Your task to perform on an android device: check data usage Image 0: 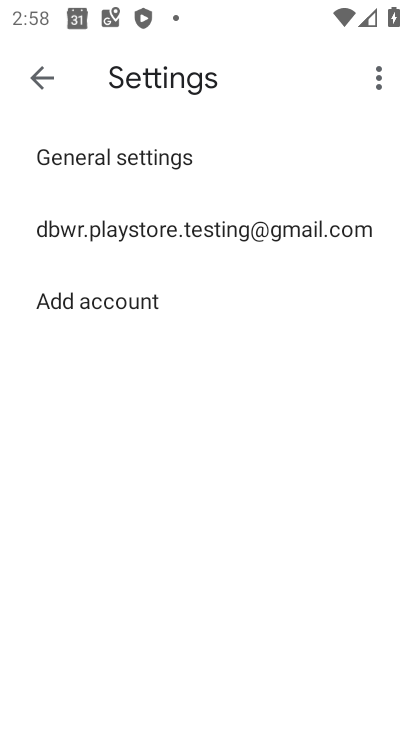
Step 0: press home button
Your task to perform on an android device: check data usage Image 1: 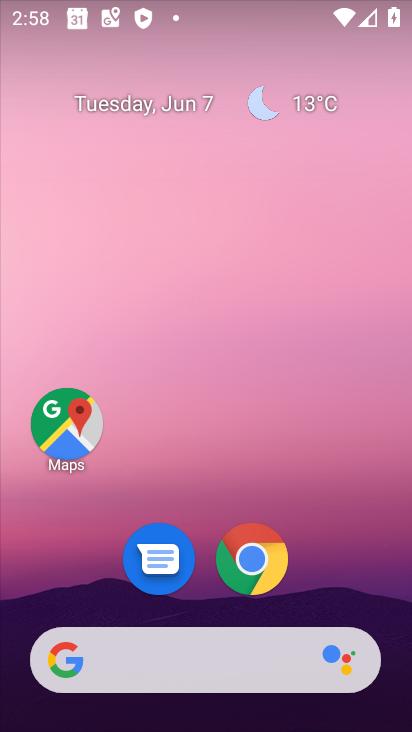
Step 1: drag from (317, 566) to (173, 45)
Your task to perform on an android device: check data usage Image 2: 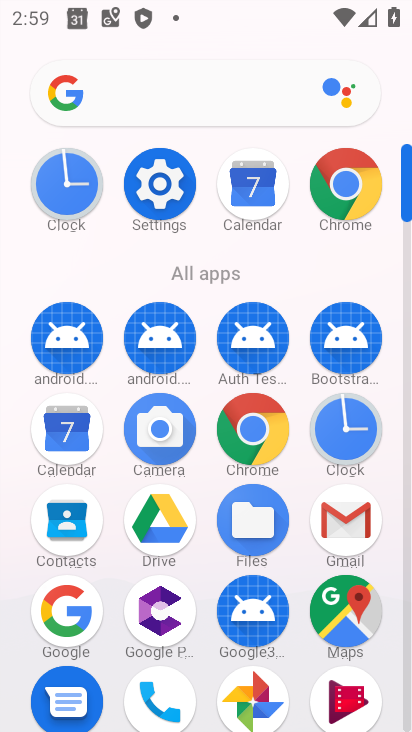
Step 2: click (160, 187)
Your task to perform on an android device: check data usage Image 3: 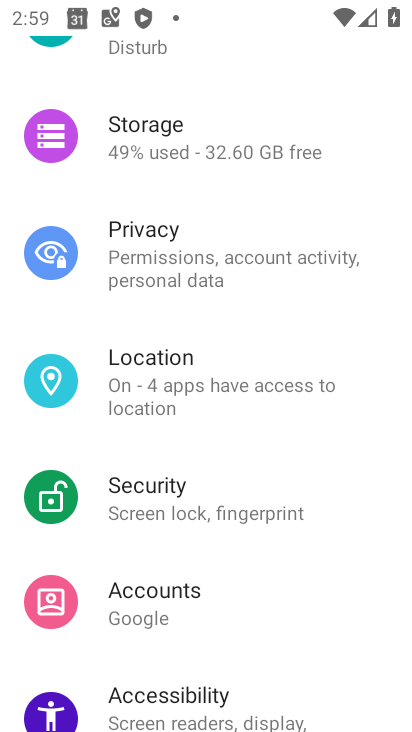
Step 3: drag from (160, 187) to (72, 482)
Your task to perform on an android device: check data usage Image 4: 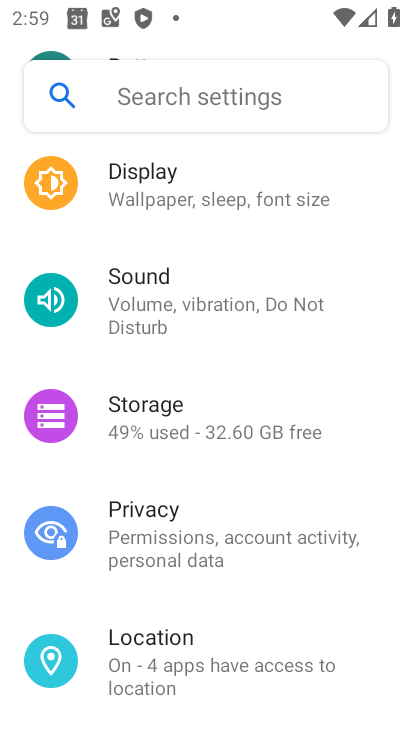
Step 4: drag from (138, 358) to (121, 603)
Your task to perform on an android device: check data usage Image 5: 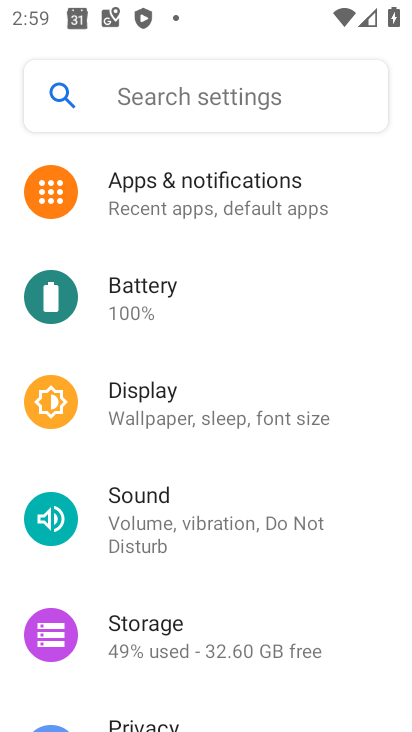
Step 5: drag from (140, 355) to (109, 596)
Your task to perform on an android device: check data usage Image 6: 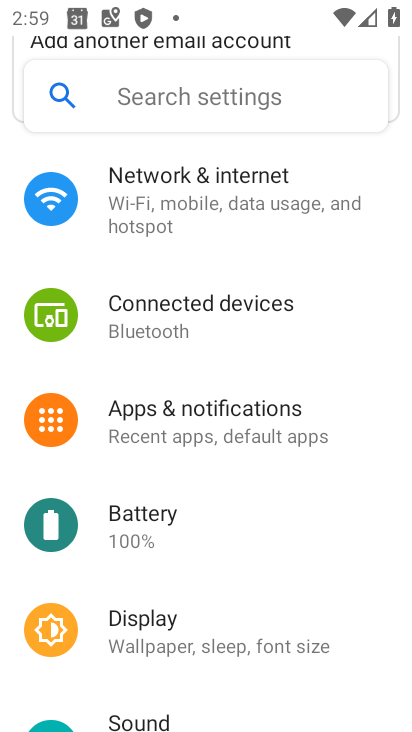
Step 6: drag from (124, 473) to (121, 562)
Your task to perform on an android device: check data usage Image 7: 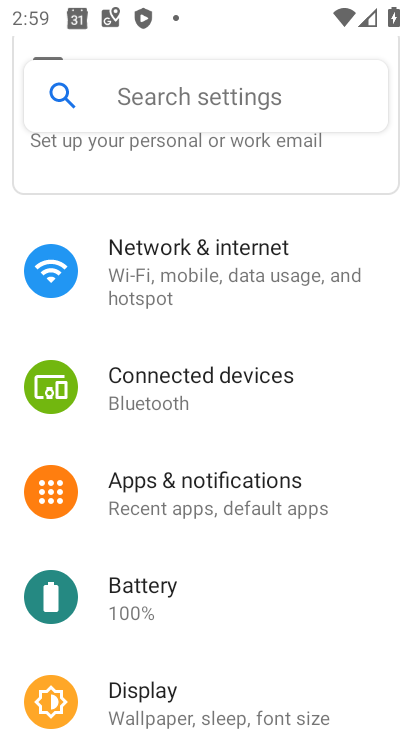
Step 7: click (150, 253)
Your task to perform on an android device: check data usage Image 8: 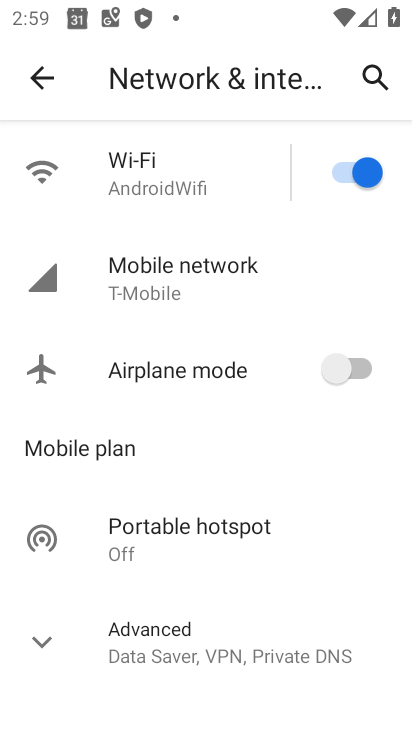
Step 8: click (156, 272)
Your task to perform on an android device: check data usage Image 9: 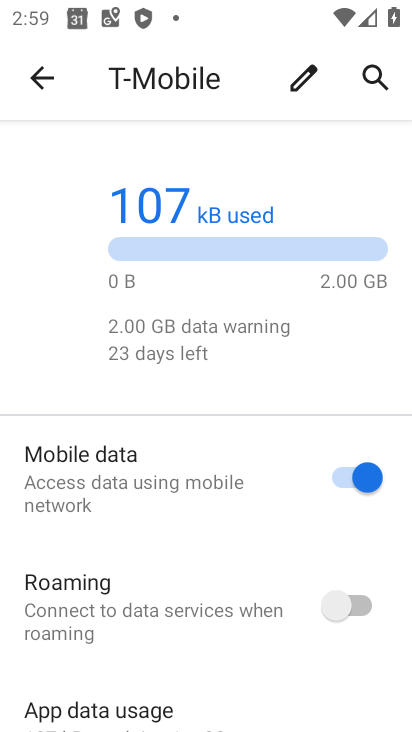
Step 9: task complete